Your task to perform on an android device: What's the weather today? Image 0: 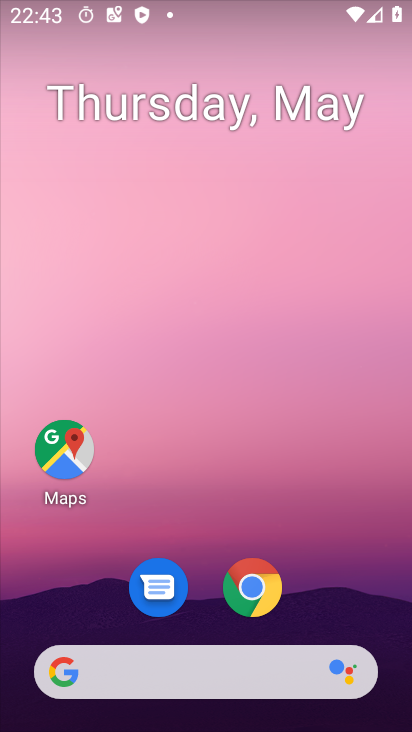
Step 0: click (106, 670)
Your task to perform on an android device: What's the weather today? Image 1: 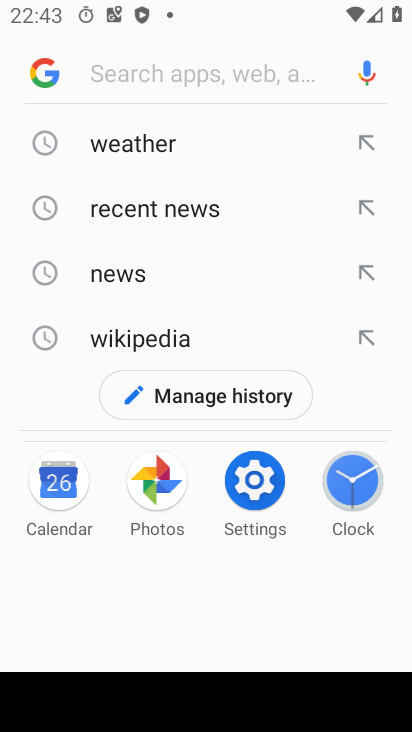
Step 1: click (135, 157)
Your task to perform on an android device: What's the weather today? Image 2: 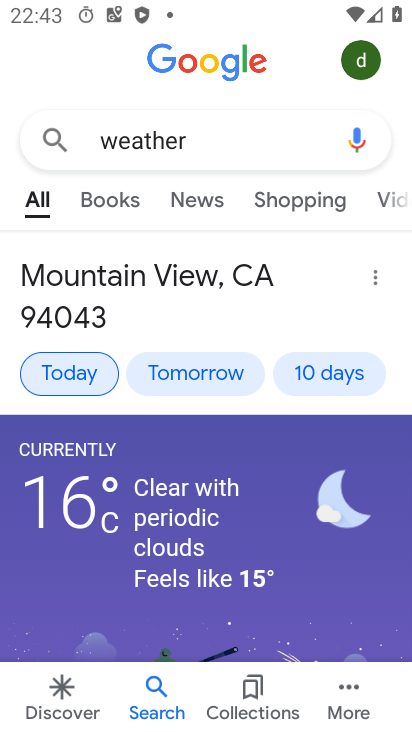
Step 2: task complete